Your task to perform on an android device: remove spam from my inbox in the gmail app Image 0: 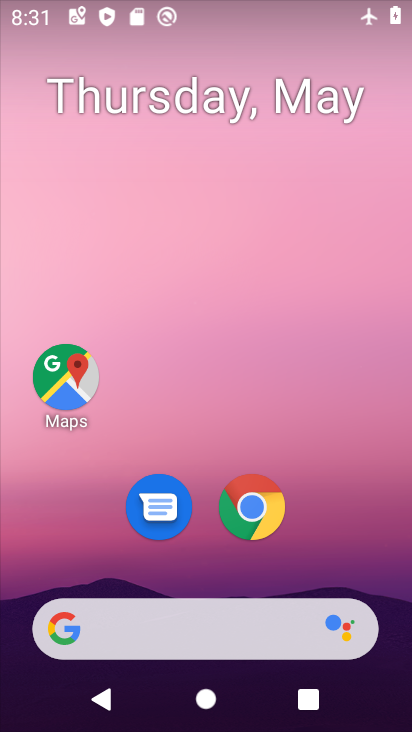
Step 0: click (349, 529)
Your task to perform on an android device: remove spam from my inbox in the gmail app Image 1: 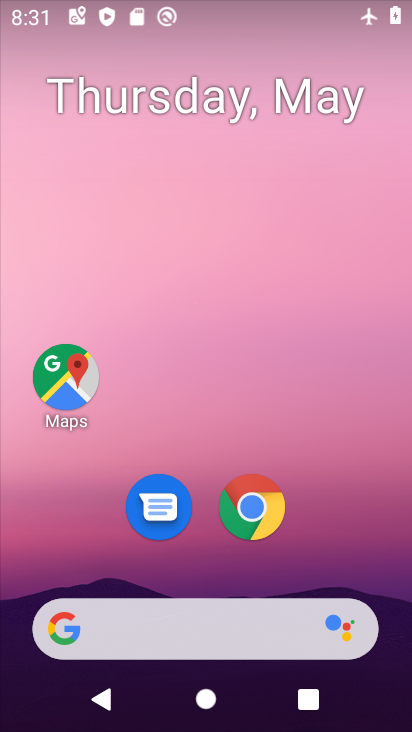
Step 1: drag from (374, 579) to (344, 93)
Your task to perform on an android device: remove spam from my inbox in the gmail app Image 2: 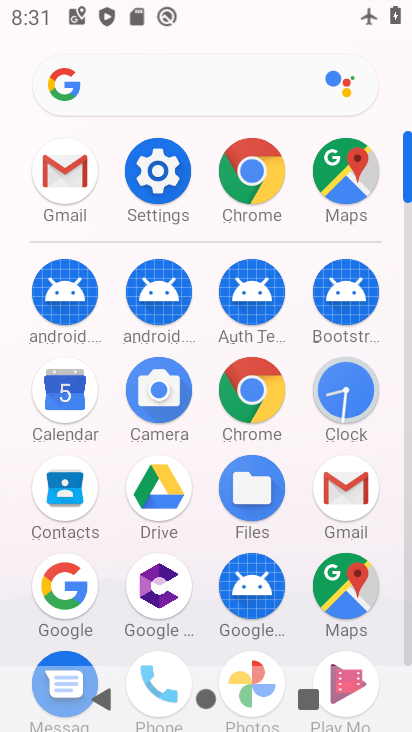
Step 2: click (337, 478)
Your task to perform on an android device: remove spam from my inbox in the gmail app Image 3: 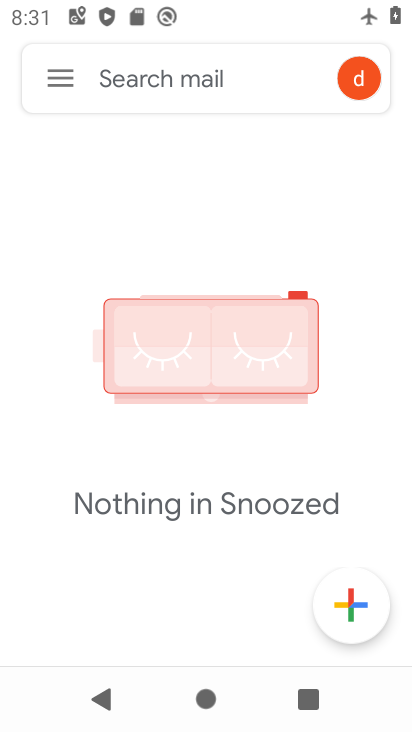
Step 3: click (64, 74)
Your task to perform on an android device: remove spam from my inbox in the gmail app Image 4: 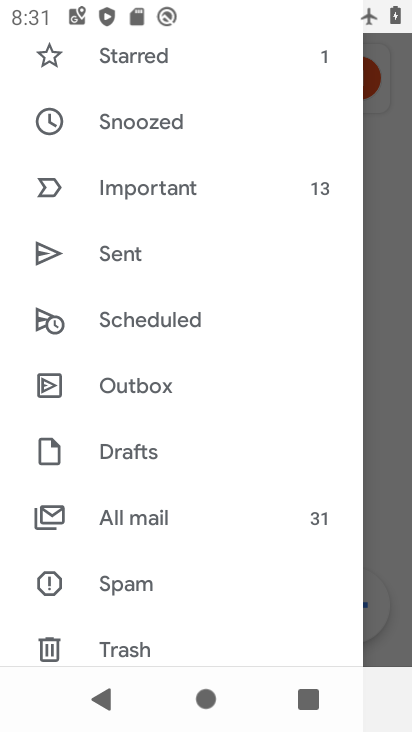
Step 4: drag from (242, 582) to (269, 179)
Your task to perform on an android device: remove spam from my inbox in the gmail app Image 5: 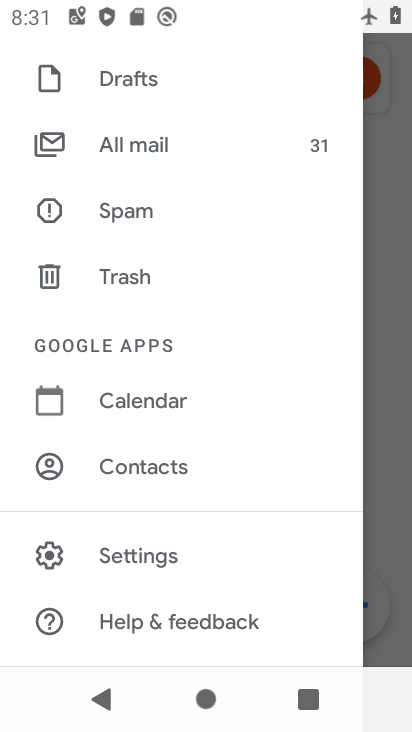
Step 5: click (149, 210)
Your task to perform on an android device: remove spam from my inbox in the gmail app Image 6: 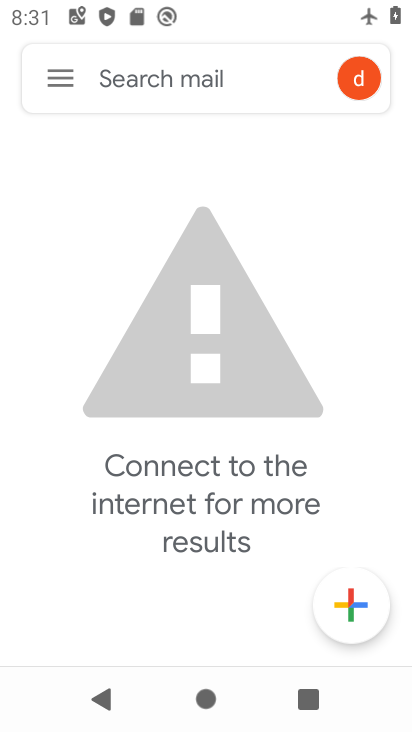
Step 6: task complete